Your task to perform on an android device: Open Google Chrome Image 0: 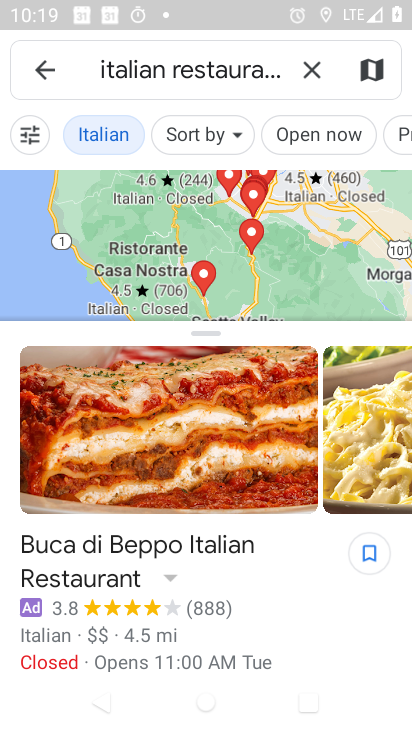
Step 0: click (312, 58)
Your task to perform on an android device: Open Google Chrome Image 1: 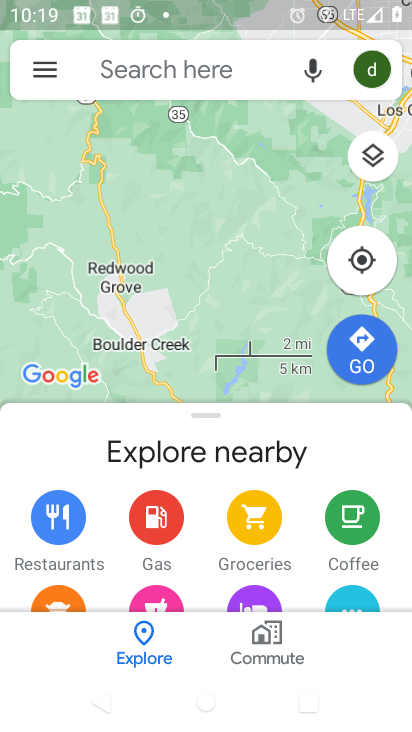
Step 1: press home button
Your task to perform on an android device: Open Google Chrome Image 2: 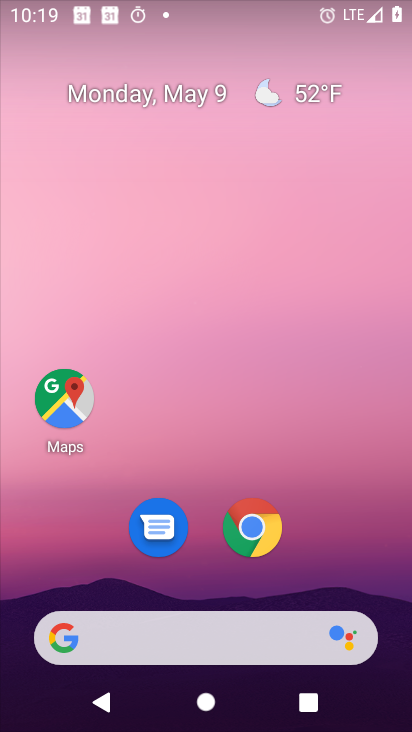
Step 2: click (258, 528)
Your task to perform on an android device: Open Google Chrome Image 3: 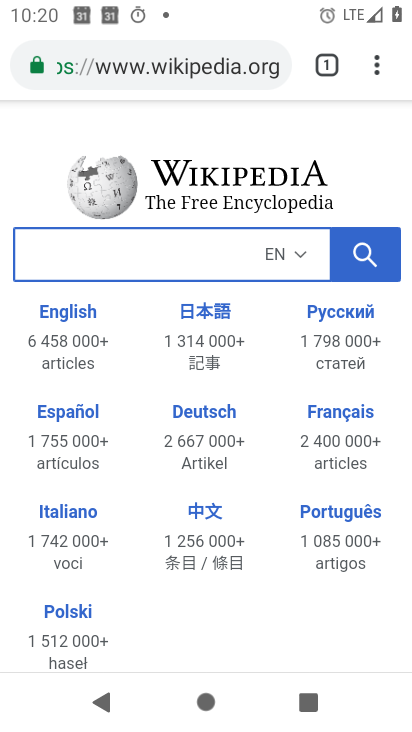
Step 3: task complete